Your task to perform on an android device: open the mobile data screen to see how much data has been used Image 0: 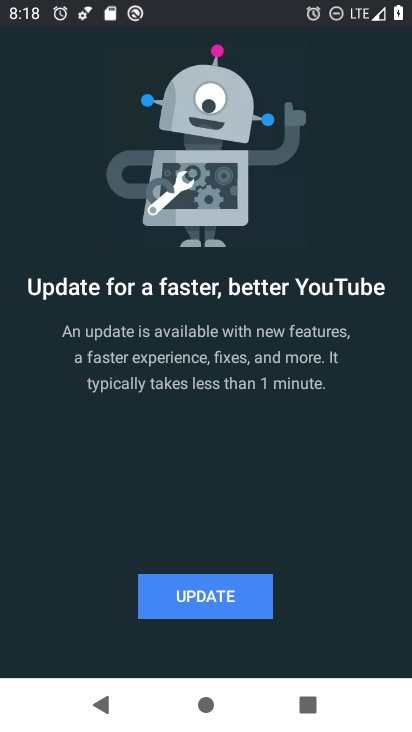
Step 0: press home button
Your task to perform on an android device: open the mobile data screen to see how much data has been used Image 1: 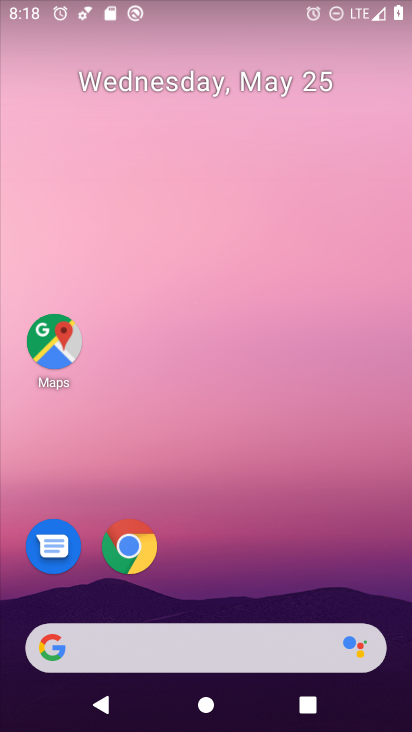
Step 1: drag from (385, 594) to (382, 348)
Your task to perform on an android device: open the mobile data screen to see how much data has been used Image 2: 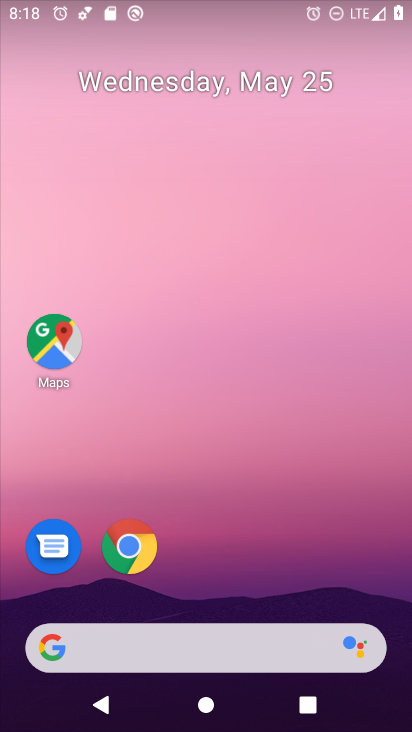
Step 2: drag from (345, 555) to (333, 129)
Your task to perform on an android device: open the mobile data screen to see how much data has been used Image 3: 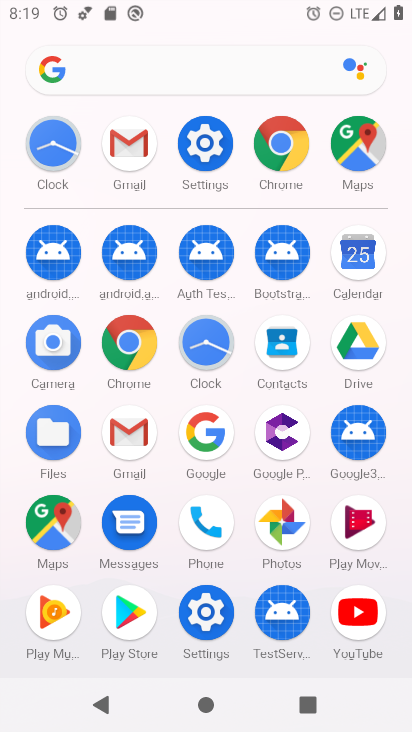
Step 3: click (217, 156)
Your task to perform on an android device: open the mobile data screen to see how much data has been used Image 4: 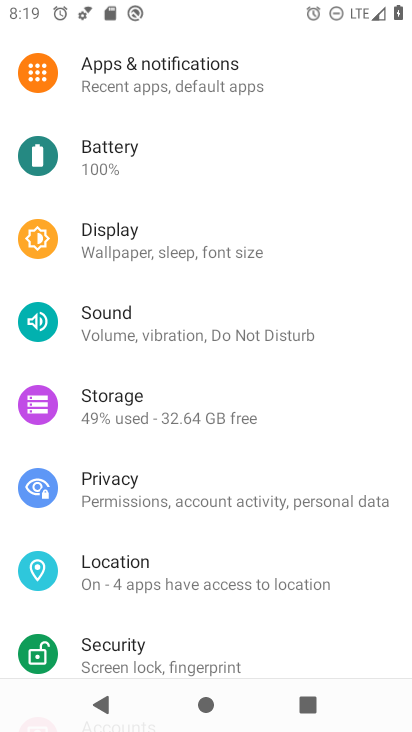
Step 4: drag from (334, 329) to (337, 380)
Your task to perform on an android device: open the mobile data screen to see how much data has been used Image 5: 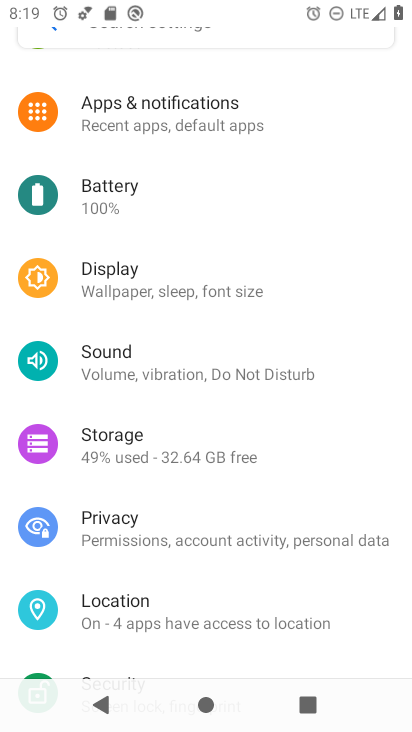
Step 5: drag from (336, 267) to (342, 367)
Your task to perform on an android device: open the mobile data screen to see how much data has been used Image 6: 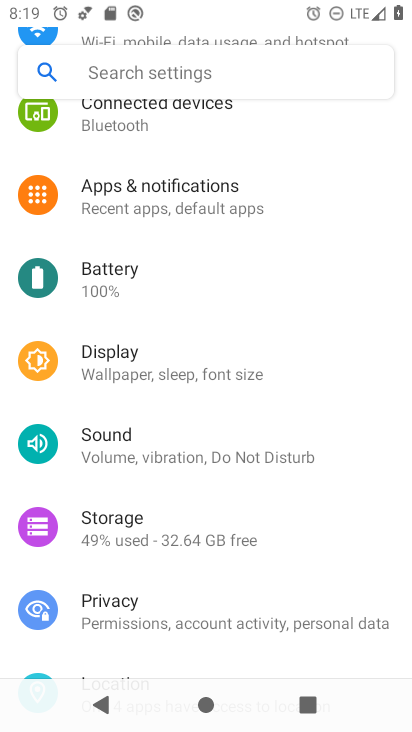
Step 6: drag from (334, 242) to (342, 342)
Your task to perform on an android device: open the mobile data screen to see how much data has been used Image 7: 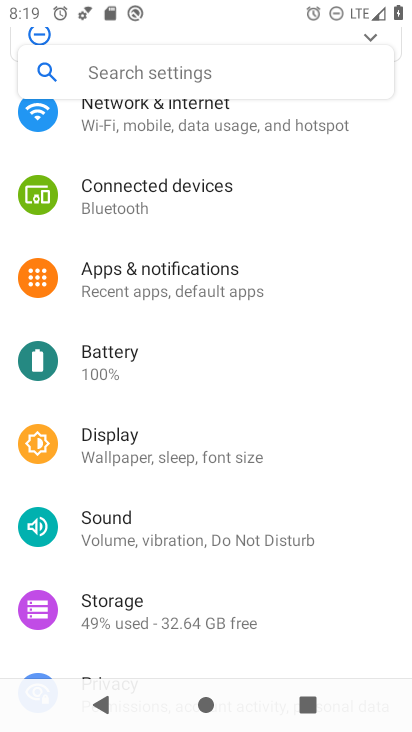
Step 7: drag from (336, 222) to (340, 324)
Your task to perform on an android device: open the mobile data screen to see how much data has been used Image 8: 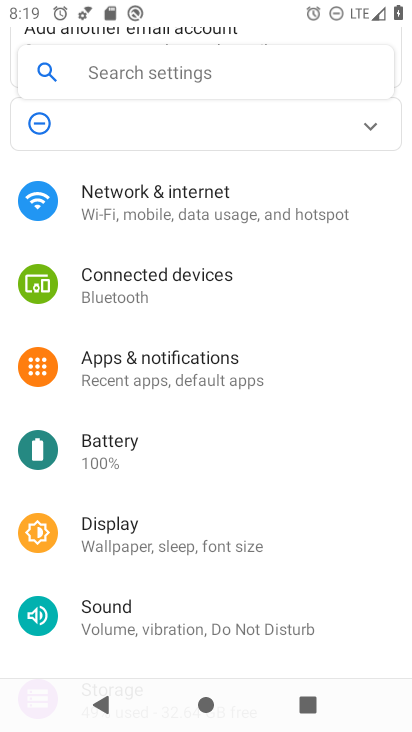
Step 8: drag from (352, 207) to (350, 358)
Your task to perform on an android device: open the mobile data screen to see how much data has been used Image 9: 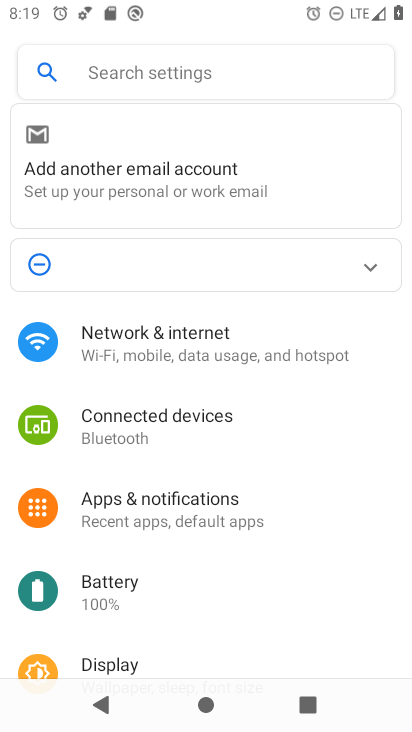
Step 9: click (245, 352)
Your task to perform on an android device: open the mobile data screen to see how much data has been used Image 10: 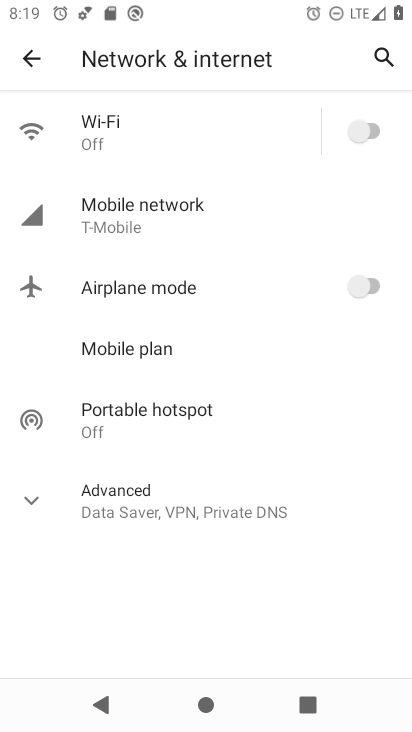
Step 10: click (204, 227)
Your task to perform on an android device: open the mobile data screen to see how much data has been used Image 11: 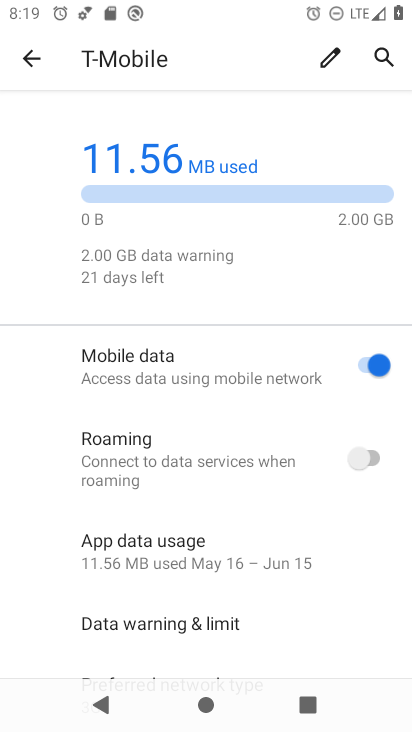
Step 11: drag from (286, 458) to (282, 338)
Your task to perform on an android device: open the mobile data screen to see how much data has been used Image 12: 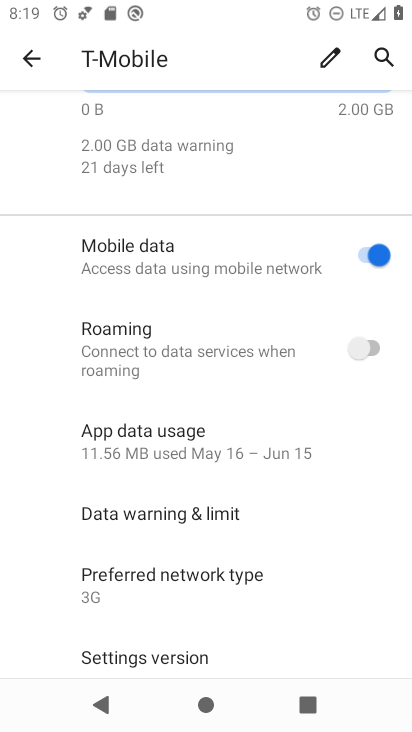
Step 12: drag from (294, 495) to (304, 386)
Your task to perform on an android device: open the mobile data screen to see how much data has been used Image 13: 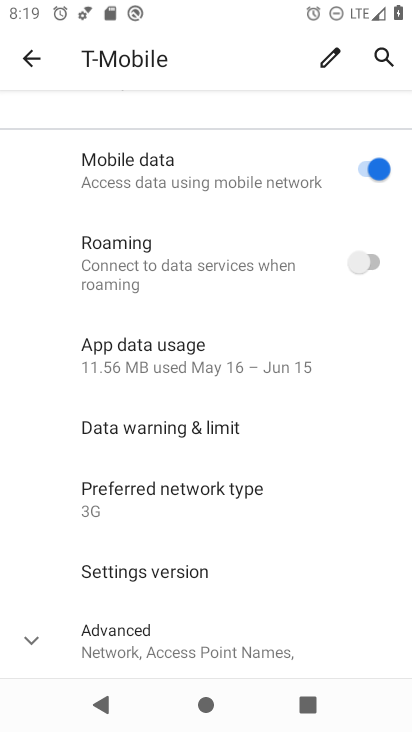
Step 13: drag from (332, 415) to (336, 321)
Your task to perform on an android device: open the mobile data screen to see how much data has been used Image 14: 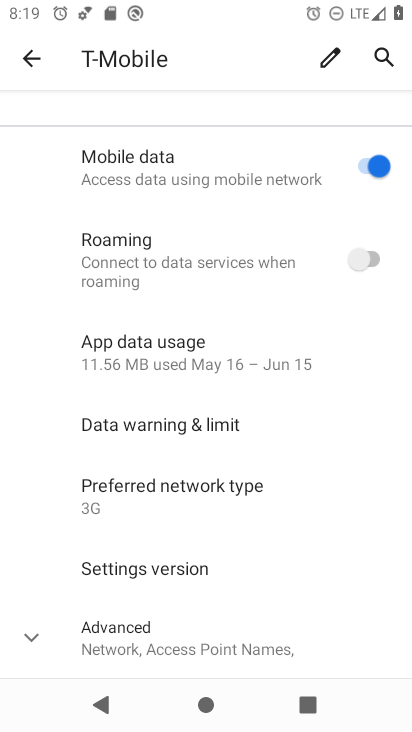
Step 14: click (234, 353)
Your task to perform on an android device: open the mobile data screen to see how much data has been used Image 15: 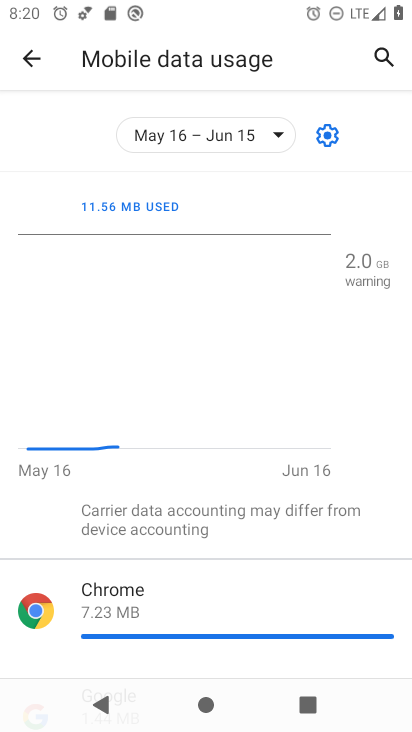
Step 15: task complete